Your task to perform on an android device: Check the weather Image 0: 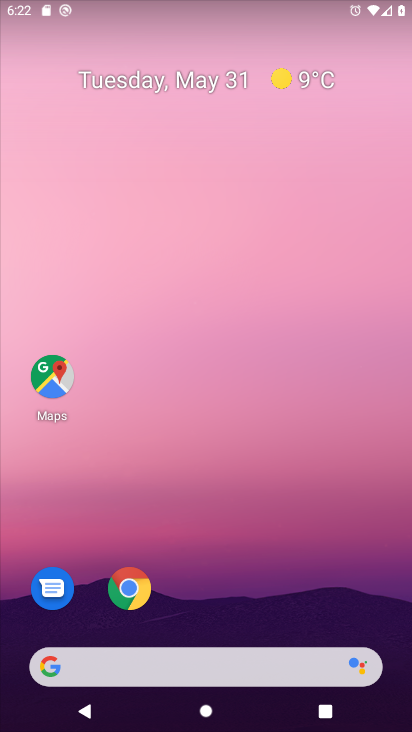
Step 0: click (228, 664)
Your task to perform on an android device: Check the weather Image 1: 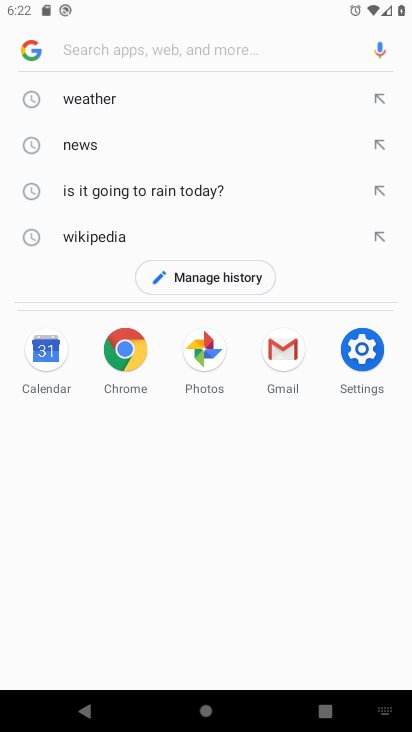
Step 1: click (114, 103)
Your task to perform on an android device: Check the weather Image 2: 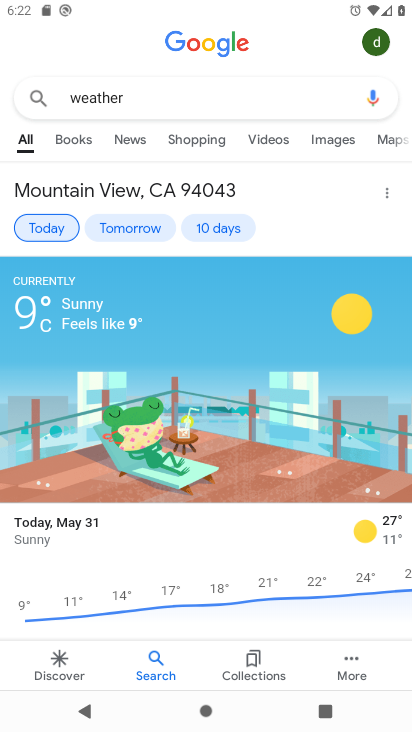
Step 2: task complete